Your task to perform on an android device: Go to location settings Image 0: 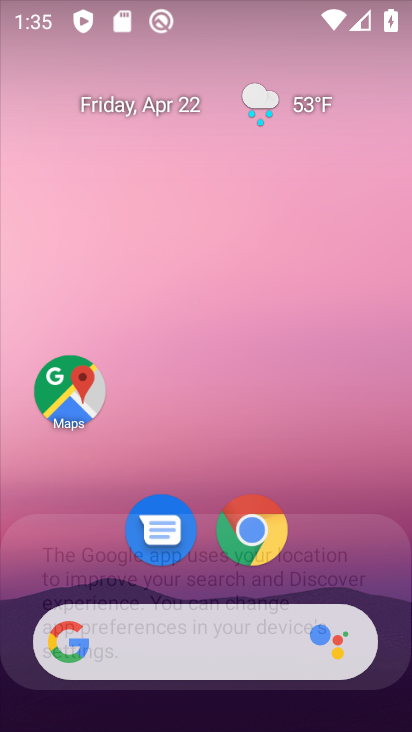
Step 0: drag from (201, 578) to (219, 165)
Your task to perform on an android device: Go to location settings Image 1: 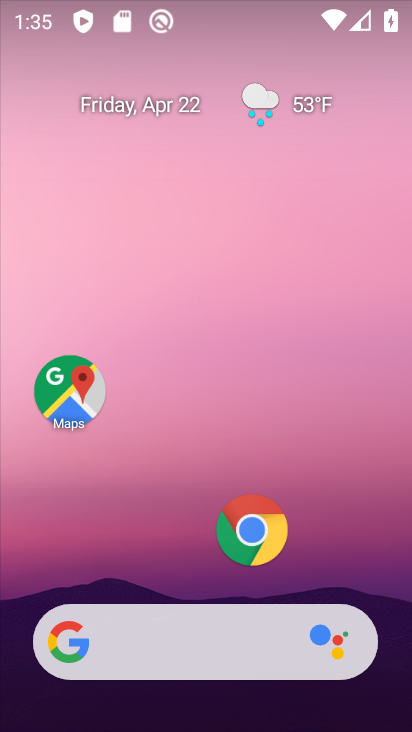
Step 1: drag from (184, 636) to (226, 66)
Your task to perform on an android device: Go to location settings Image 2: 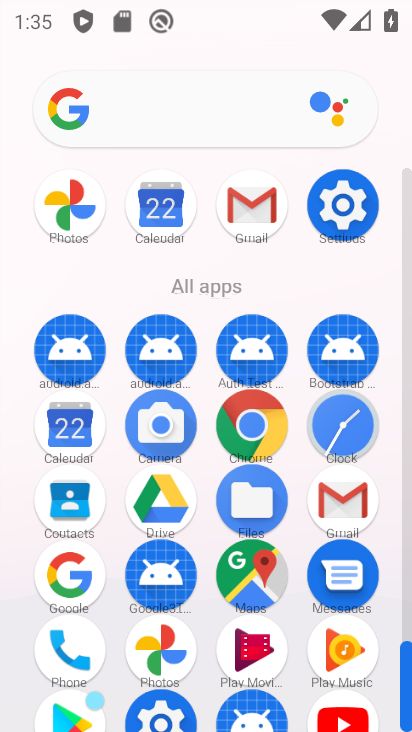
Step 2: click (358, 215)
Your task to perform on an android device: Go to location settings Image 3: 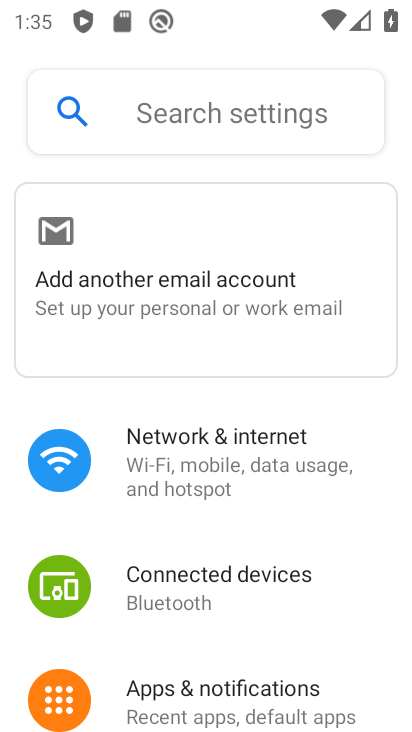
Step 3: drag from (126, 590) to (320, 13)
Your task to perform on an android device: Go to location settings Image 4: 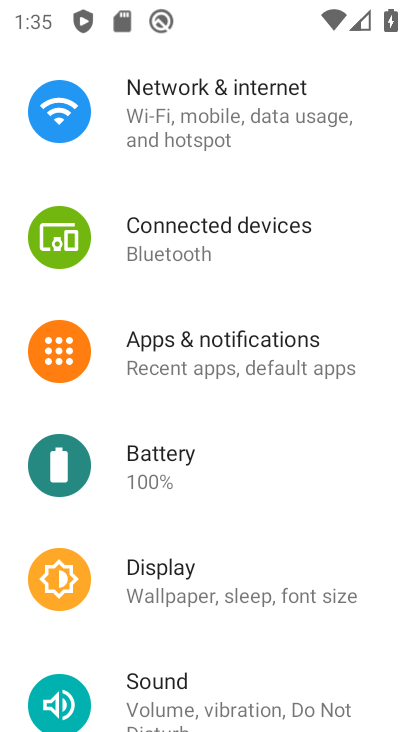
Step 4: drag from (182, 572) to (203, 201)
Your task to perform on an android device: Go to location settings Image 5: 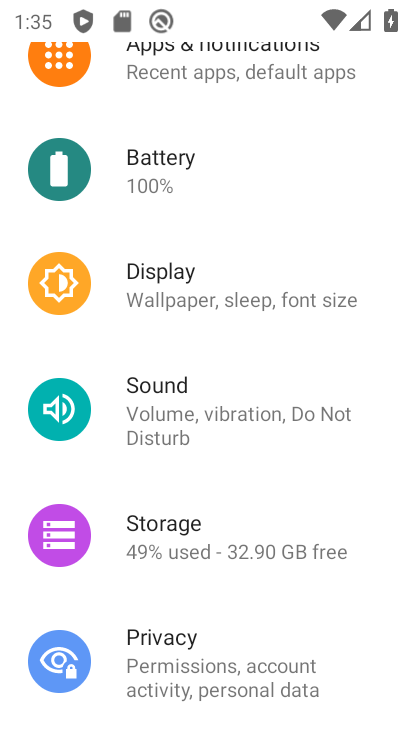
Step 5: drag from (181, 609) to (165, 114)
Your task to perform on an android device: Go to location settings Image 6: 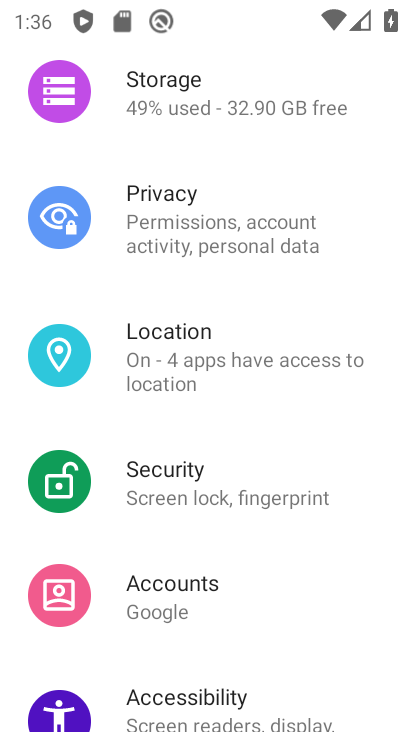
Step 6: click (204, 375)
Your task to perform on an android device: Go to location settings Image 7: 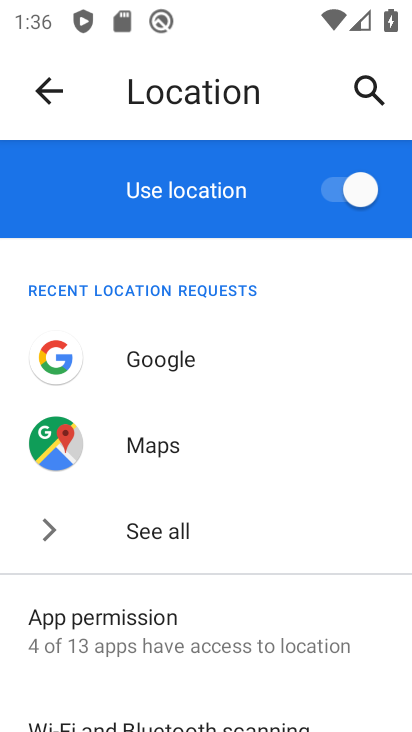
Step 7: task complete